Your task to perform on an android device: When is my next meeting? Image 0: 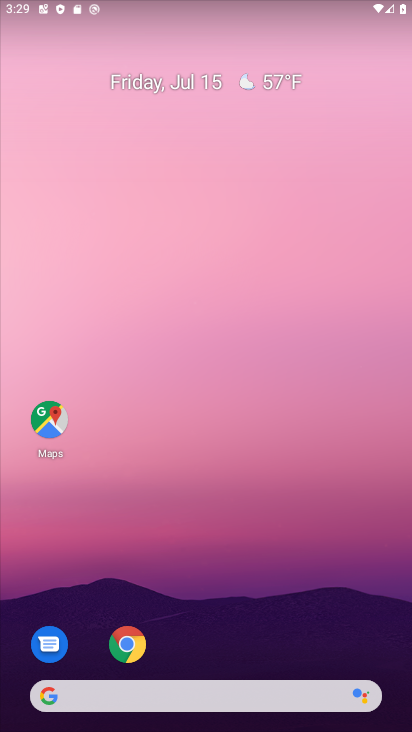
Step 0: drag from (230, 654) to (146, 65)
Your task to perform on an android device: When is my next meeting? Image 1: 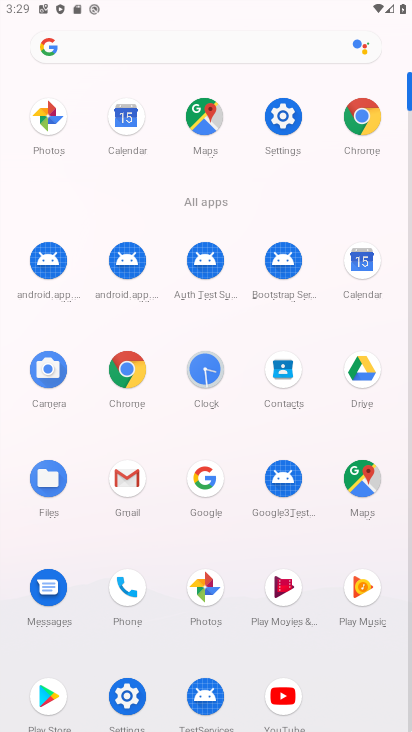
Step 1: click (372, 273)
Your task to perform on an android device: When is my next meeting? Image 2: 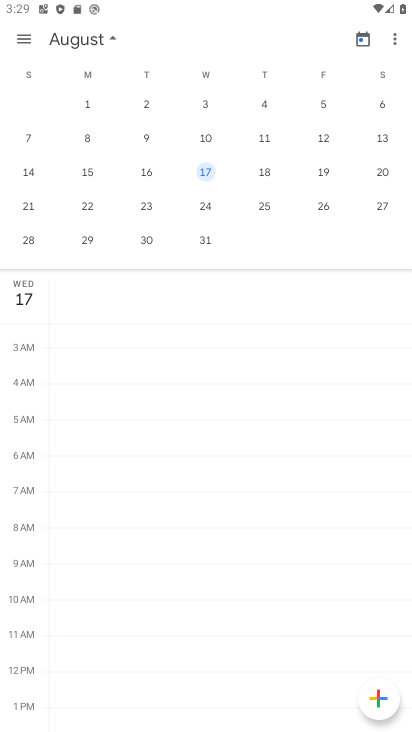
Step 2: click (109, 38)
Your task to perform on an android device: When is my next meeting? Image 3: 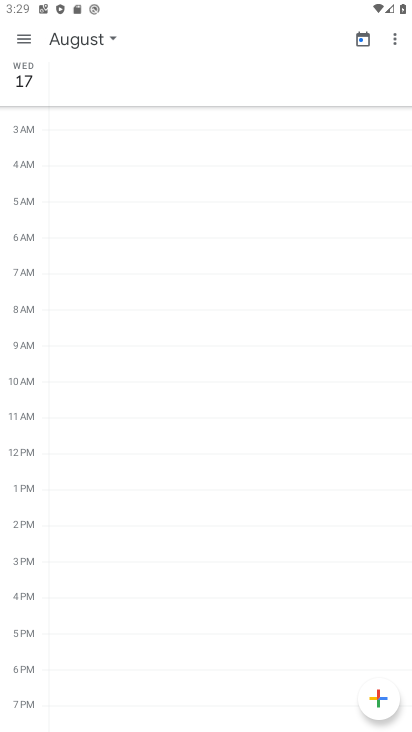
Step 3: click (27, 39)
Your task to perform on an android device: When is my next meeting? Image 4: 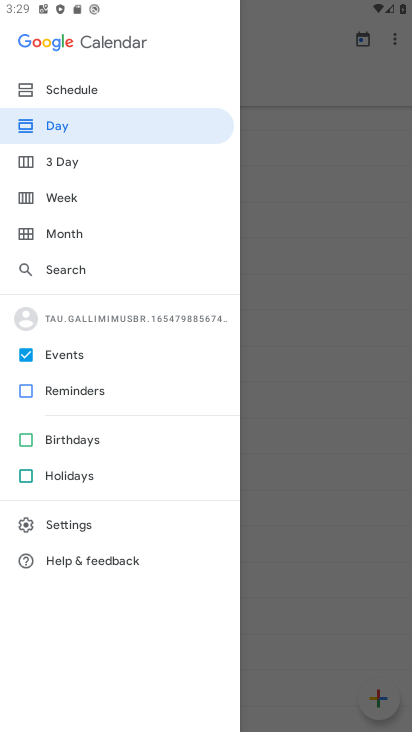
Step 4: click (79, 92)
Your task to perform on an android device: When is my next meeting? Image 5: 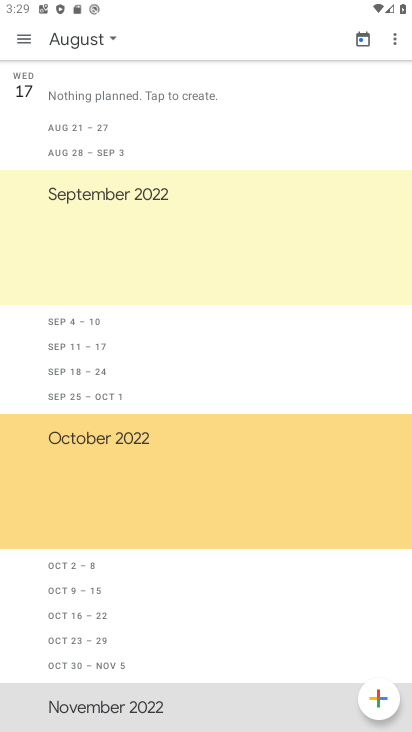
Step 5: task complete